Your task to perform on an android device: Go to display settings Image 0: 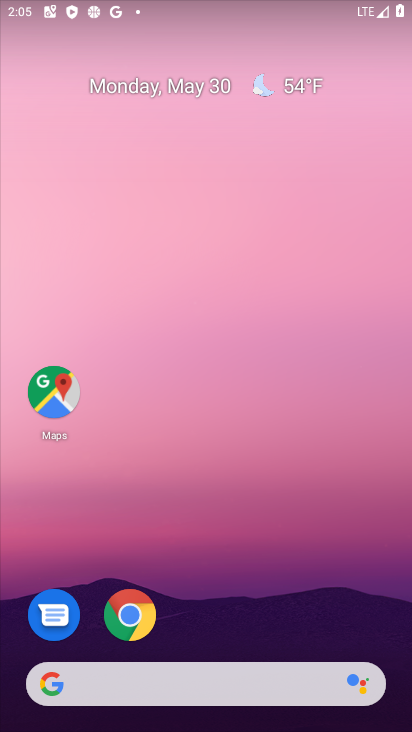
Step 0: drag from (279, 630) to (244, 177)
Your task to perform on an android device: Go to display settings Image 1: 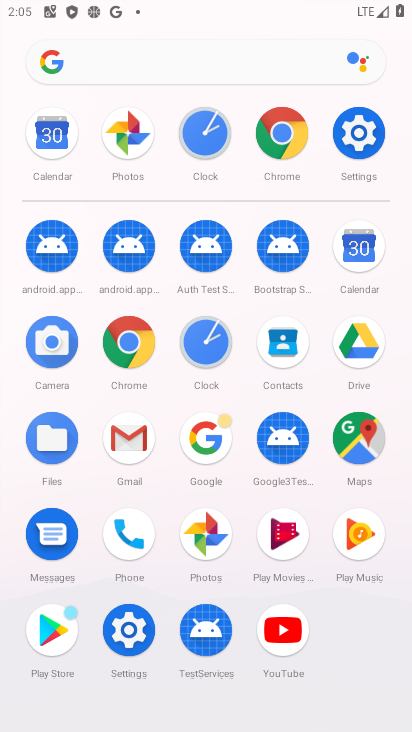
Step 1: click (371, 145)
Your task to perform on an android device: Go to display settings Image 2: 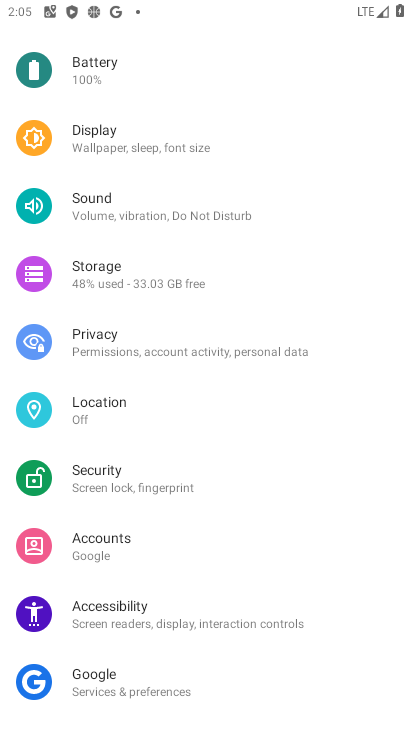
Step 2: click (166, 148)
Your task to perform on an android device: Go to display settings Image 3: 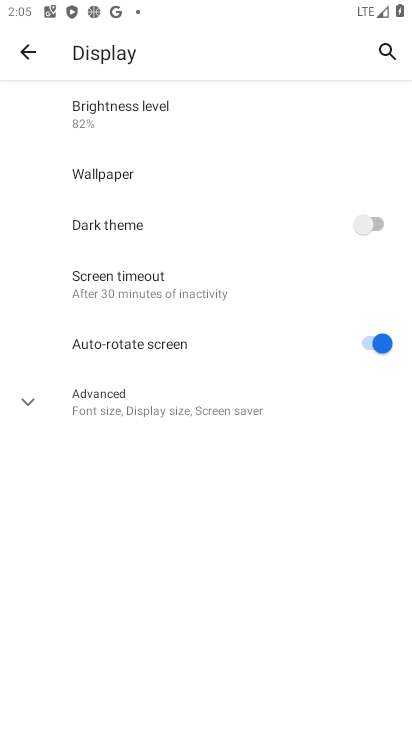
Step 3: task complete